Your task to perform on an android device: Search for vegetarian restaurants on Maps Image 0: 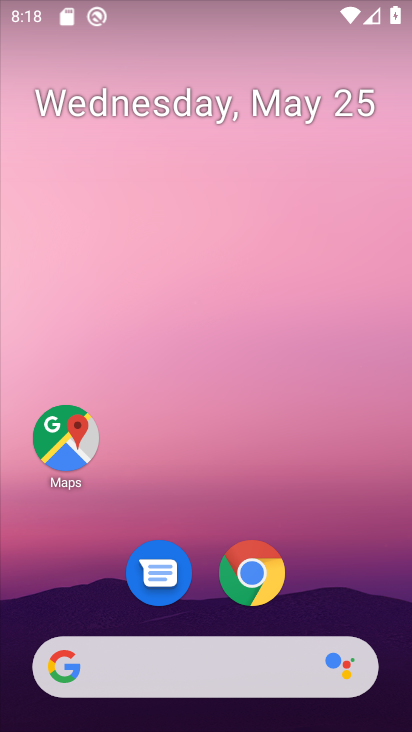
Step 0: click (50, 428)
Your task to perform on an android device: Search for vegetarian restaurants on Maps Image 1: 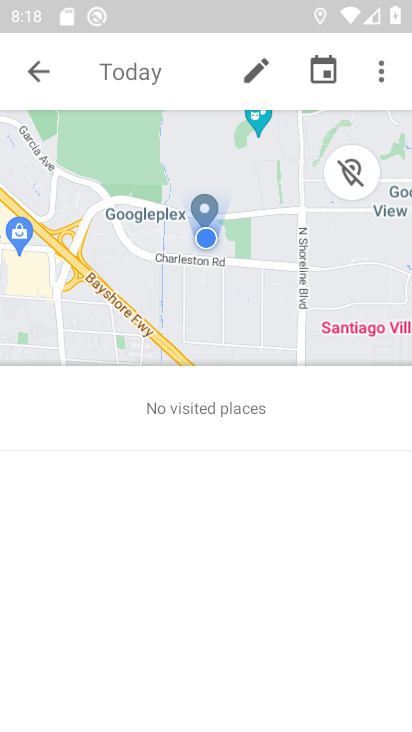
Step 1: click (34, 70)
Your task to perform on an android device: Search for vegetarian restaurants on Maps Image 2: 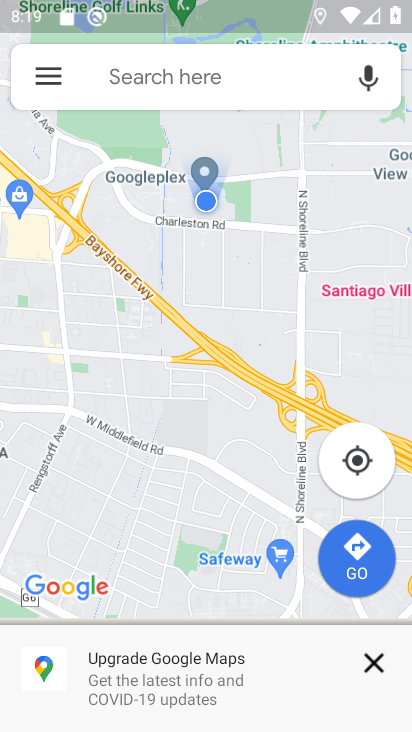
Step 2: click (115, 68)
Your task to perform on an android device: Search for vegetarian restaurants on Maps Image 3: 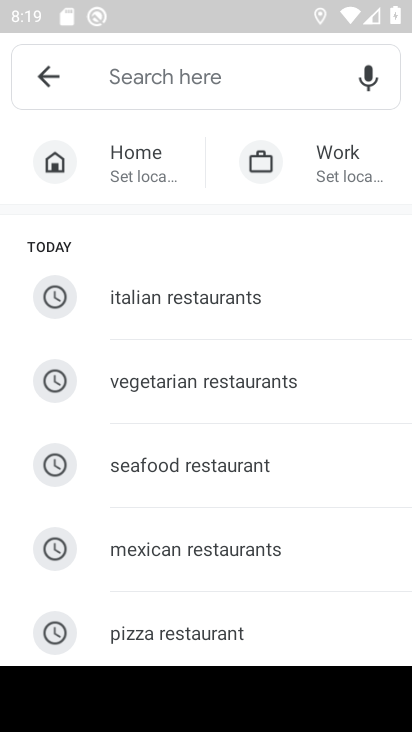
Step 3: type "vegetarian restaurants"
Your task to perform on an android device: Search for vegetarian restaurants on Maps Image 4: 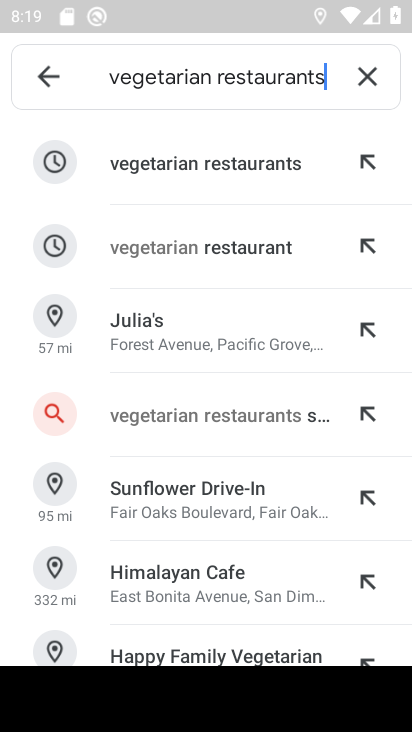
Step 4: click (197, 159)
Your task to perform on an android device: Search for vegetarian restaurants on Maps Image 5: 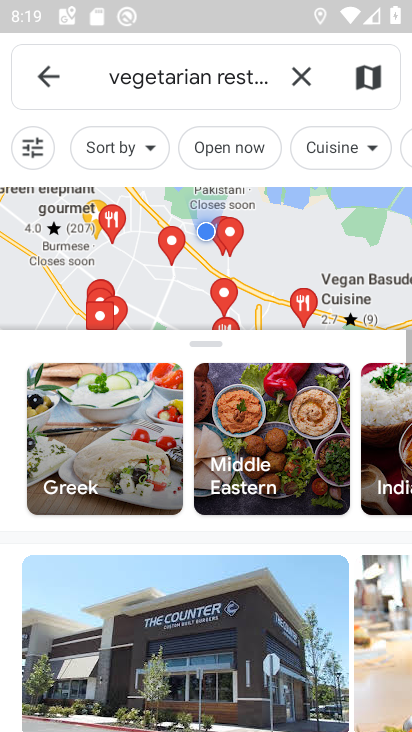
Step 5: task complete